Your task to perform on an android device: install app "Facebook Messenger" Image 0: 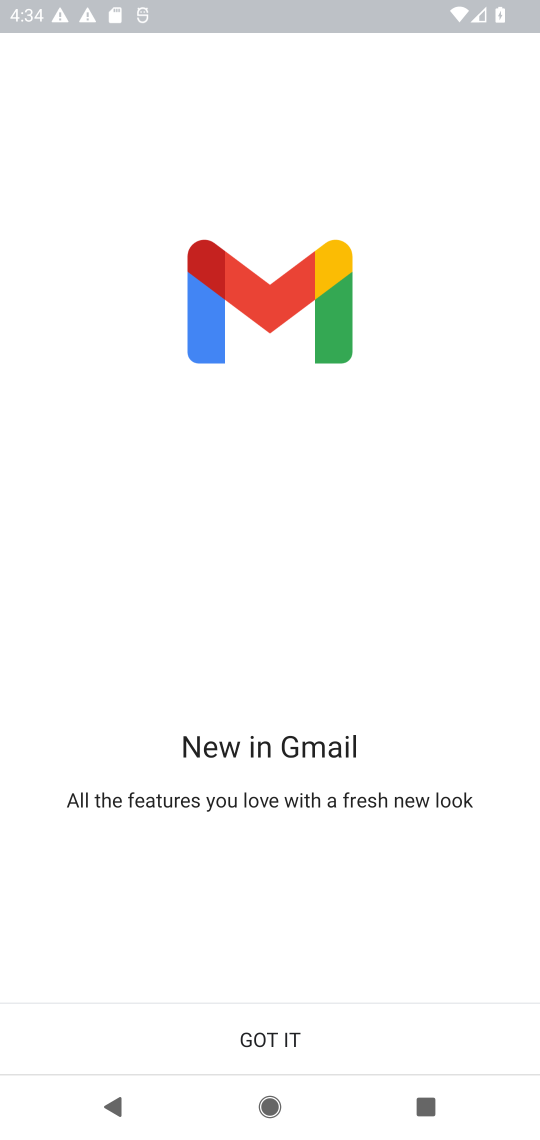
Step 0: press home button
Your task to perform on an android device: install app "Facebook Messenger" Image 1: 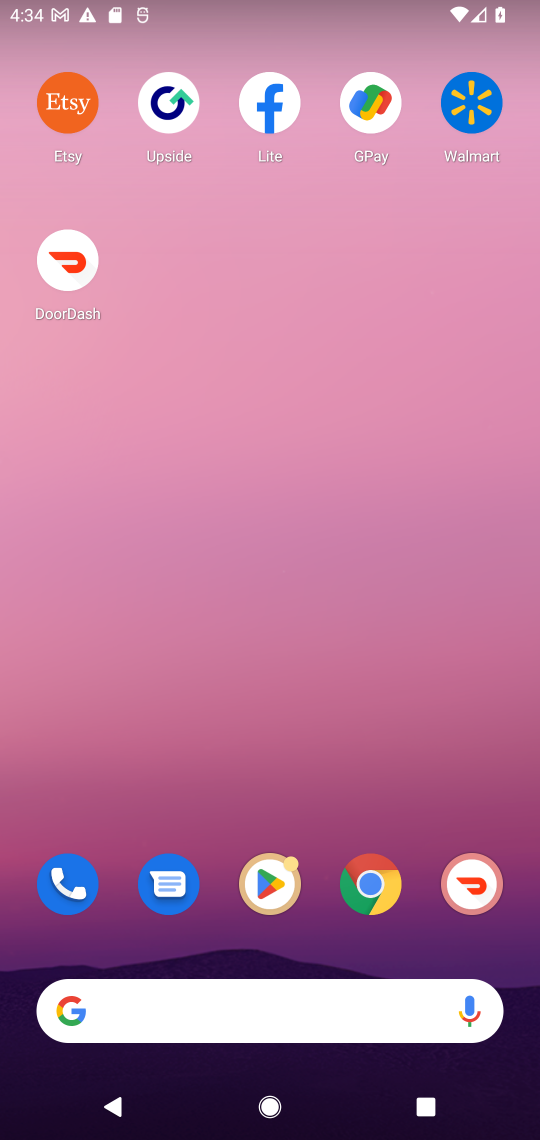
Step 1: click (264, 883)
Your task to perform on an android device: install app "Facebook Messenger" Image 2: 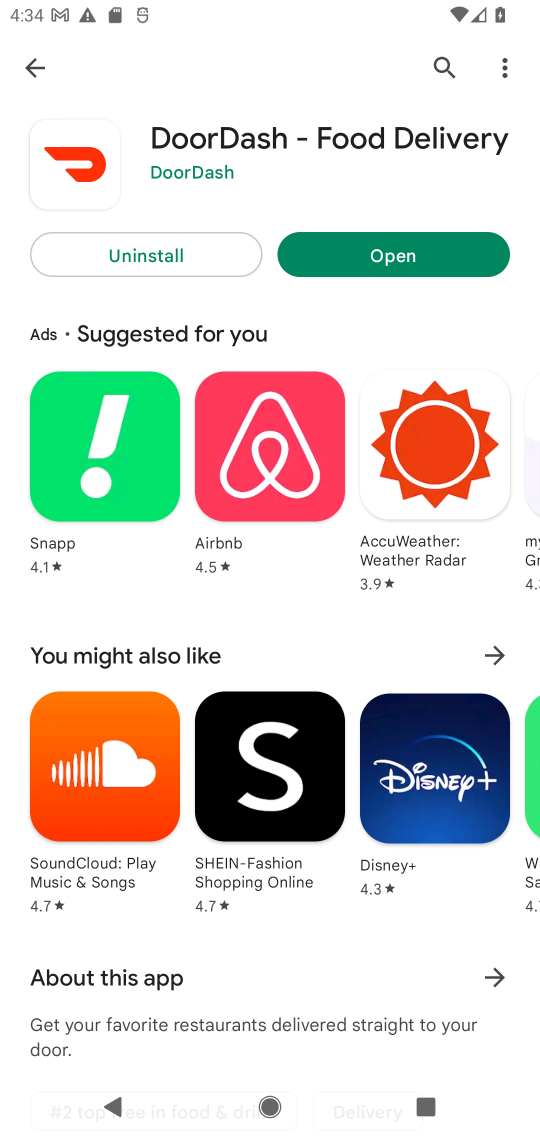
Step 2: click (37, 71)
Your task to perform on an android device: install app "Facebook Messenger" Image 3: 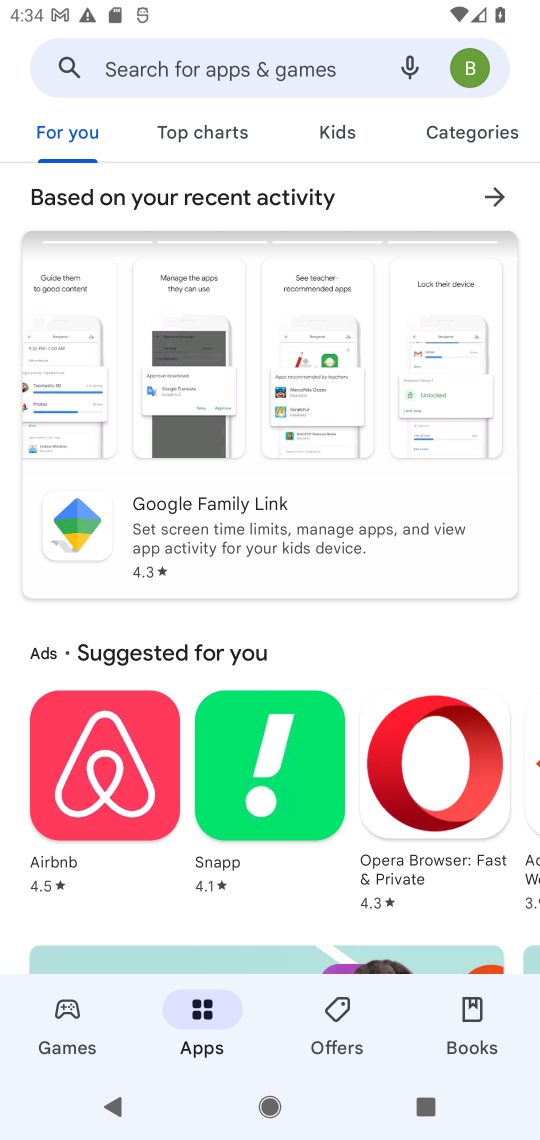
Step 3: click (281, 72)
Your task to perform on an android device: install app "Facebook Messenger" Image 4: 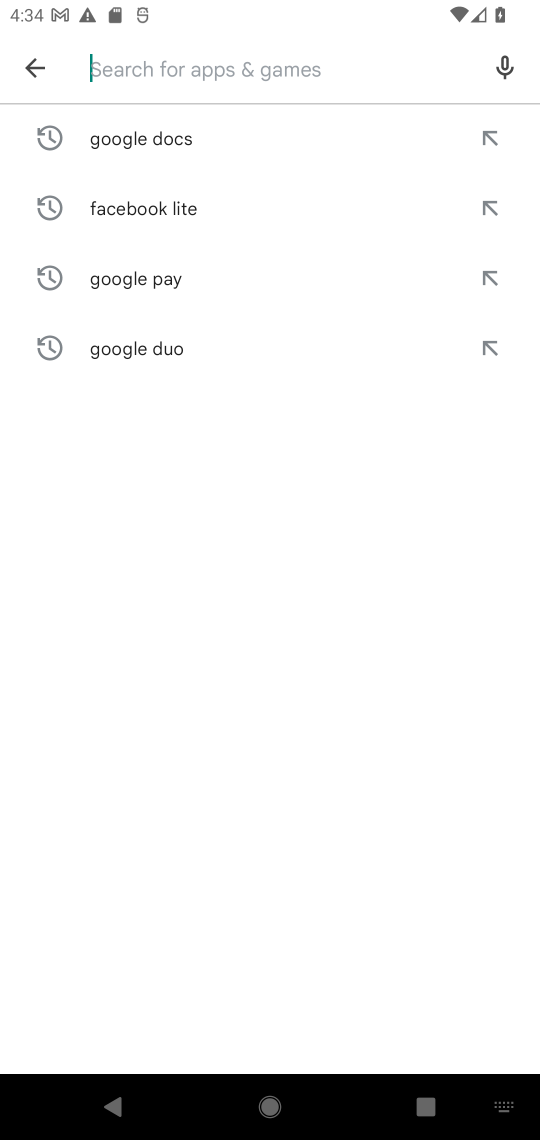
Step 4: type "Facebook Messenger"
Your task to perform on an android device: install app "Facebook Messenger" Image 5: 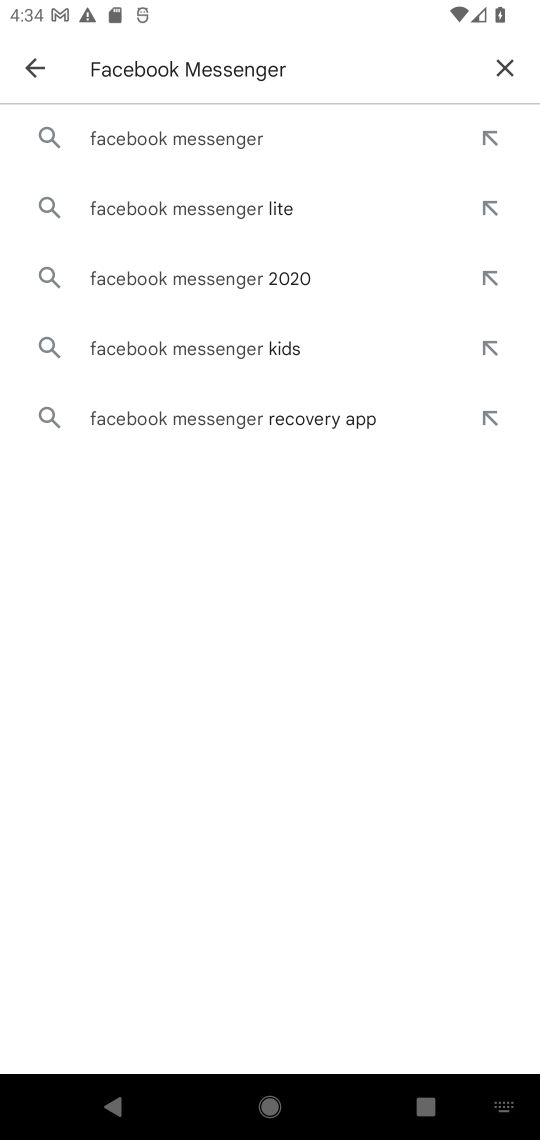
Step 5: click (150, 134)
Your task to perform on an android device: install app "Facebook Messenger" Image 6: 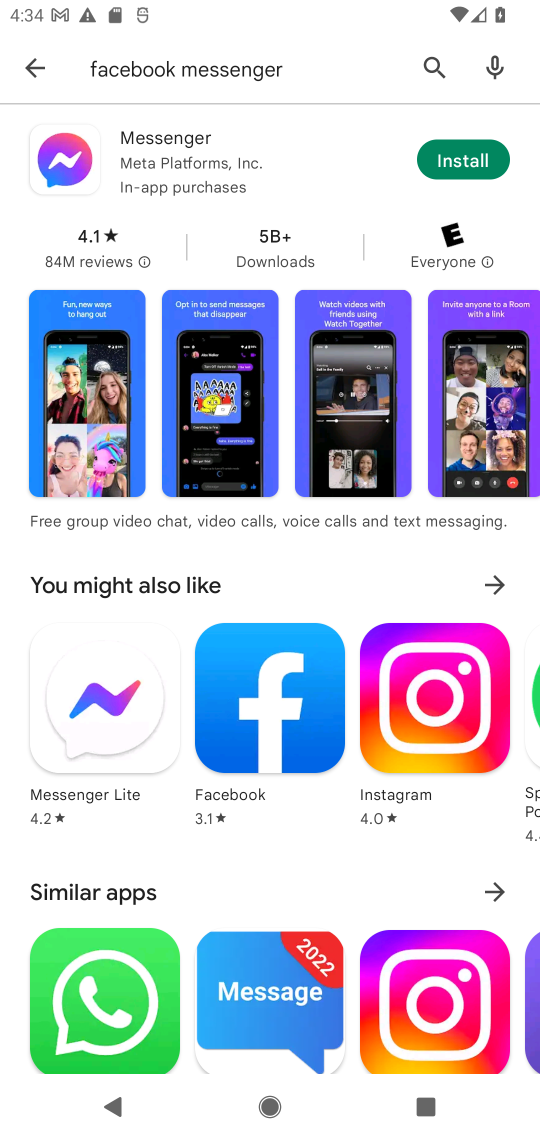
Step 6: click (461, 169)
Your task to perform on an android device: install app "Facebook Messenger" Image 7: 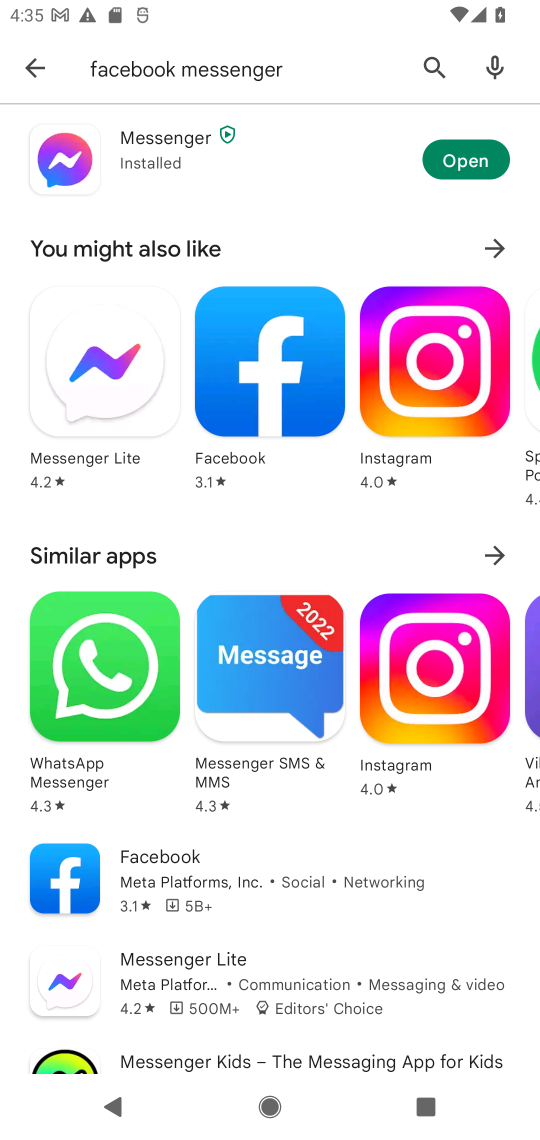
Step 7: click (461, 169)
Your task to perform on an android device: install app "Facebook Messenger" Image 8: 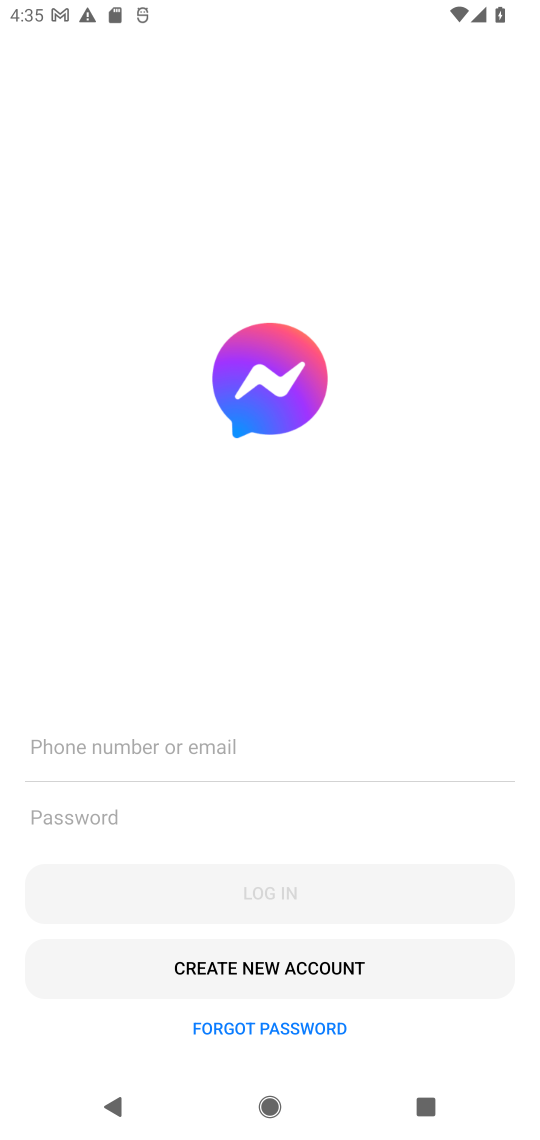
Step 8: task complete